Your task to perform on an android device: refresh tabs in the chrome app Image 0: 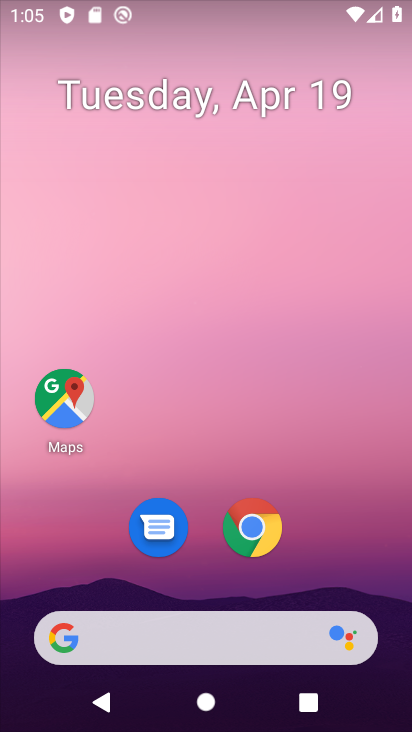
Step 0: click (261, 533)
Your task to perform on an android device: refresh tabs in the chrome app Image 1: 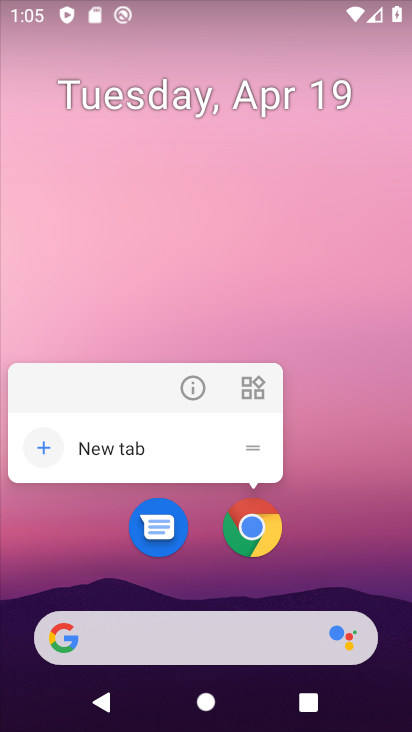
Step 1: drag from (353, 572) to (351, 85)
Your task to perform on an android device: refresh tabs in the chrome app Image 2: 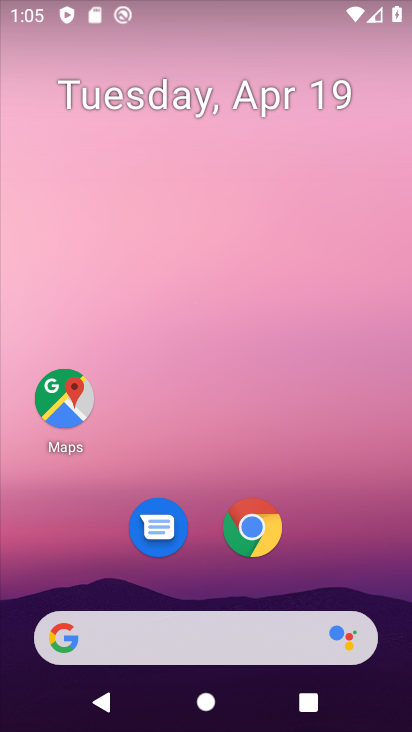
Step 2: drag from (329, 567) to (338, 88)
Your task to perform on an android device: refresh tabs in the chrome app Image 3: 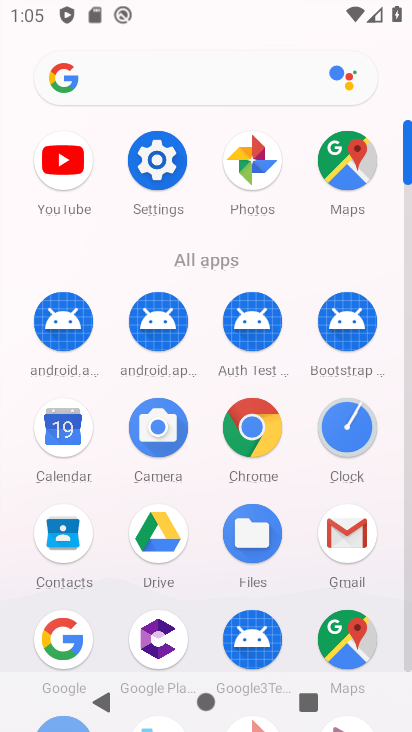
Step 3: click (257, 440)
Your task to perform on an android device: refresh tabs in the chrome app Image 4: 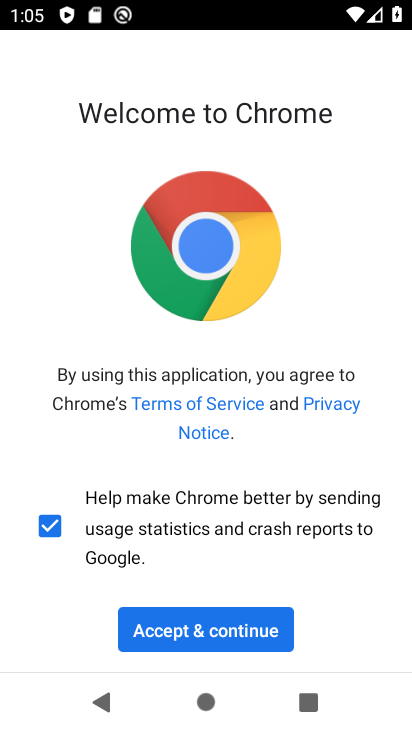
Step 4: click (197, 621)
Your task to perform on an android device: refresh tabs in the chrome app Image 5: 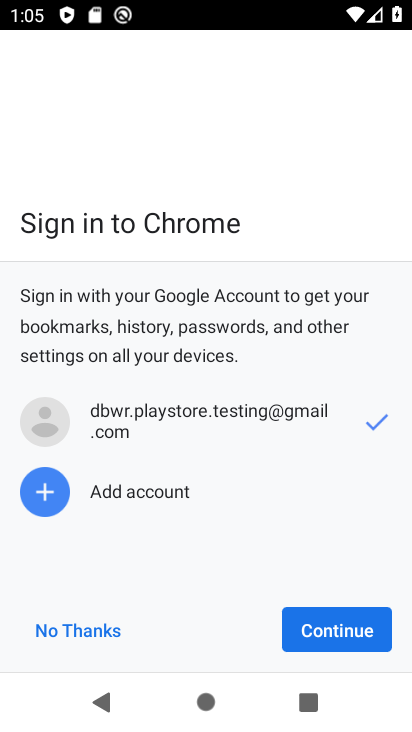
Step 5: click (312, 622)
Your task to perform on an android device: refresh tabs in the chrome app Image 6: 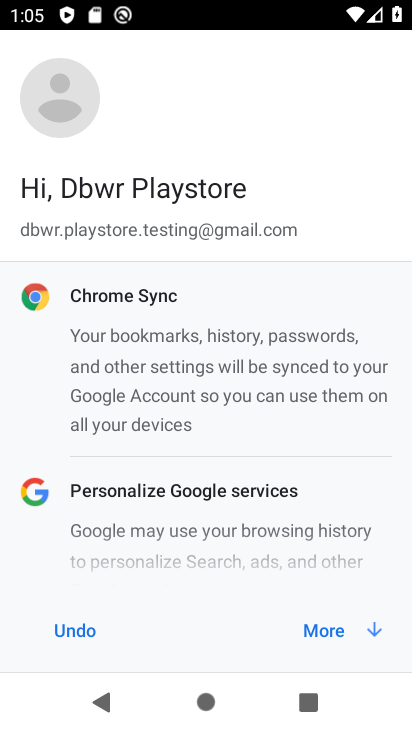
Step 6: click (312, 622)
Your task to perform on an android device: refresh tabs in the chrome app Image 7: 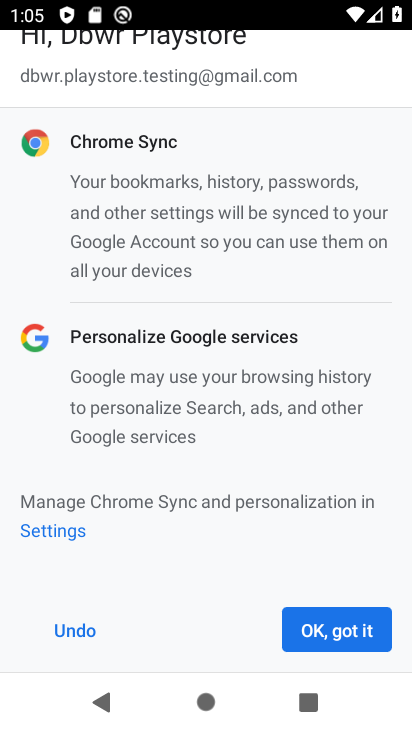
Step 7: click (312, 622)
Your task to perform on an android device: refresh tabs in the chrome app Image 8: 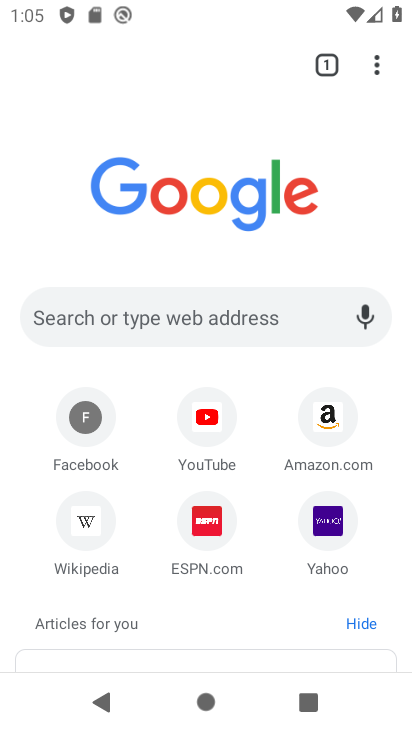
Step 8: click (375, 65)
Your task to perform on an android device: refresh tabs in the chrome app Image 9: 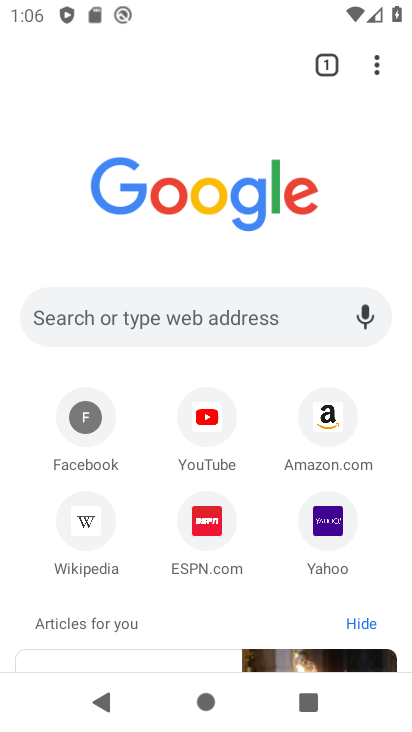
Step 9: task complete